Your task to perform on an android device: change notifications settings Image 0: 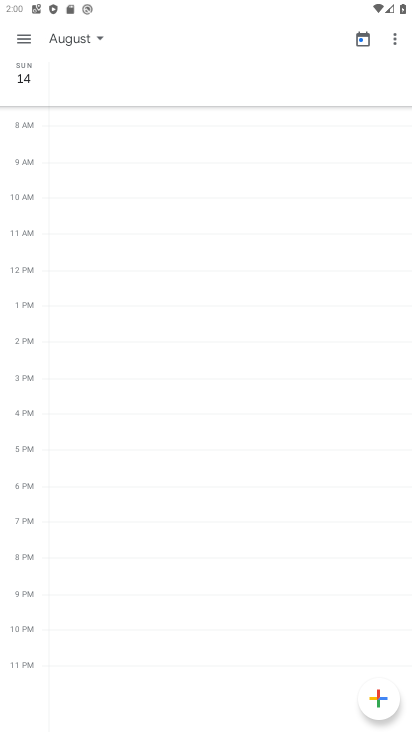
Step 0: press home button
Your task to perform on an android device: change notifications settings Image 1: 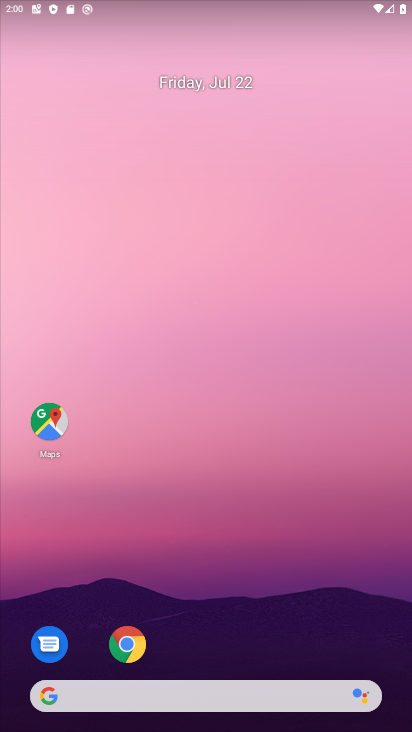
Step 1: drag from (229, 661) to (174, 152)
Your task to perform on an android device: change notifications settings Image 2: 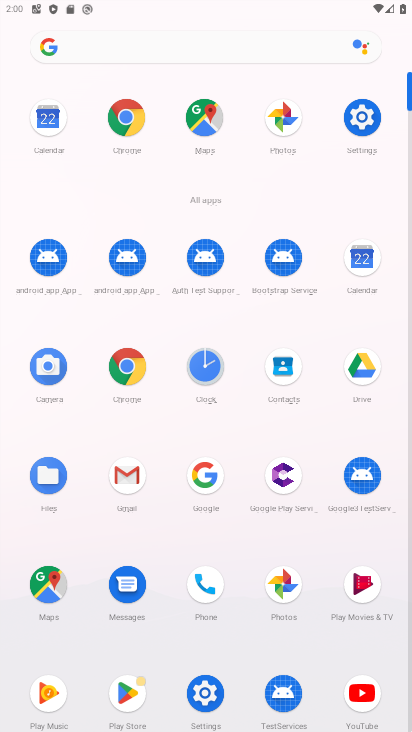
Step 2: click (361, 107)
Your task to perform on an android device: change notifications settings Image 3: 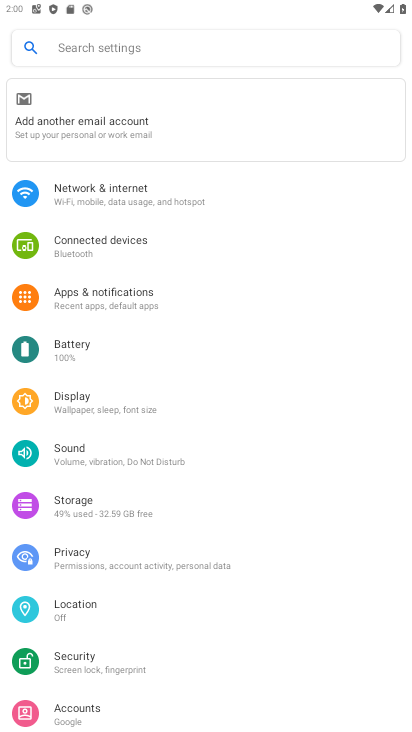
Step 3: drag from (75, 196) to (406, 355)
Your task to perform on an android device: change notifications settings Image 4: 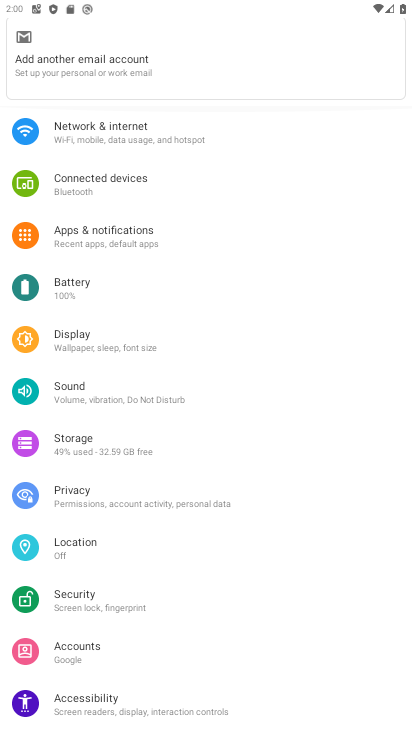
Step 4: click (118, 288)
Your task to perform on an android device: change notifications settings Image 5: 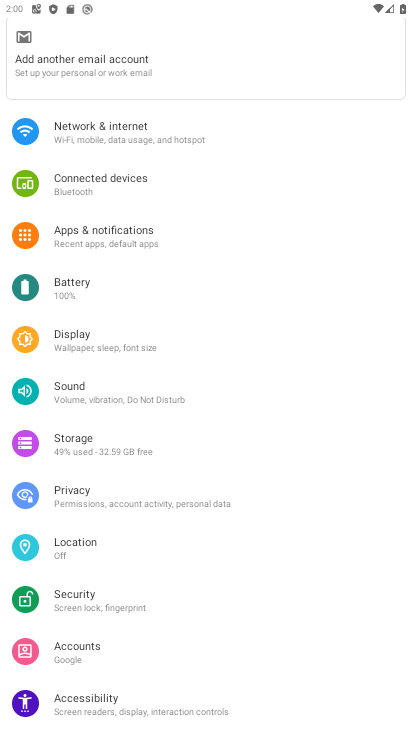
Step 5: click (133, 223)
Your task to perform on an android device: change notifications settings Image 6: 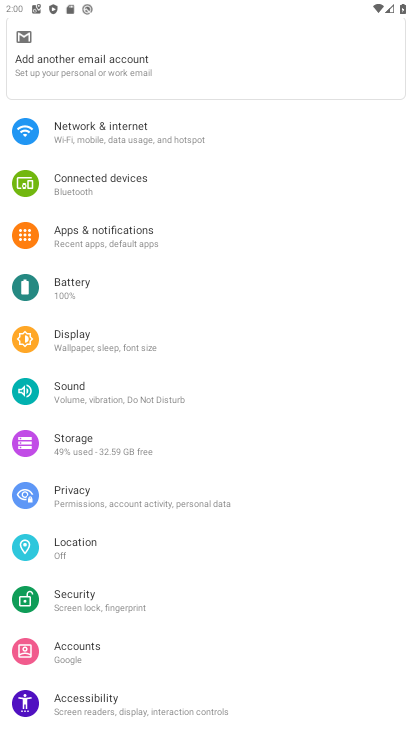
Step 6: click (133, 223)
Your task to perform on an android device: change notifications settings Image 7: 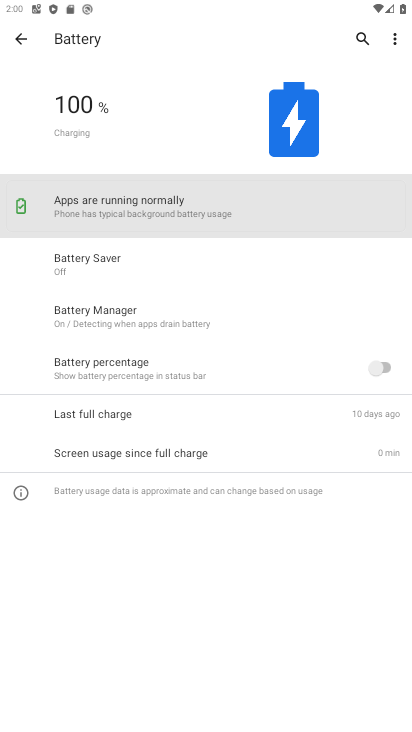
Step 7: click (133, 223)
Your task to perform on an android device: change notifications settings Image 8: 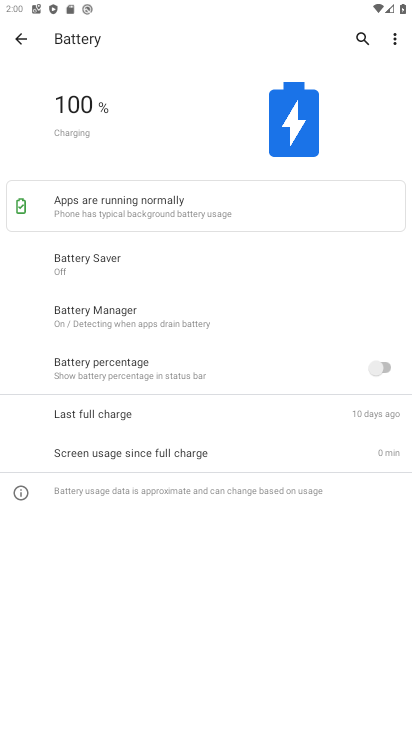
Step 8: click (40, 41)
Your task to perform on an android device: change notifications settings Image 9: 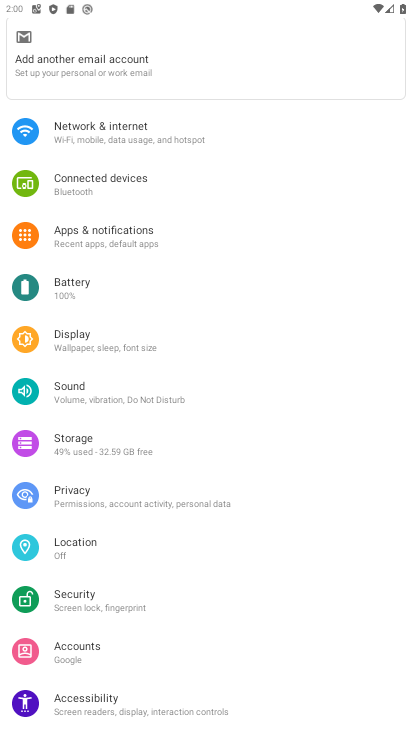
Step 9: click (97, 231)
Your task to perform on an android device: change notifications settings Image 10: 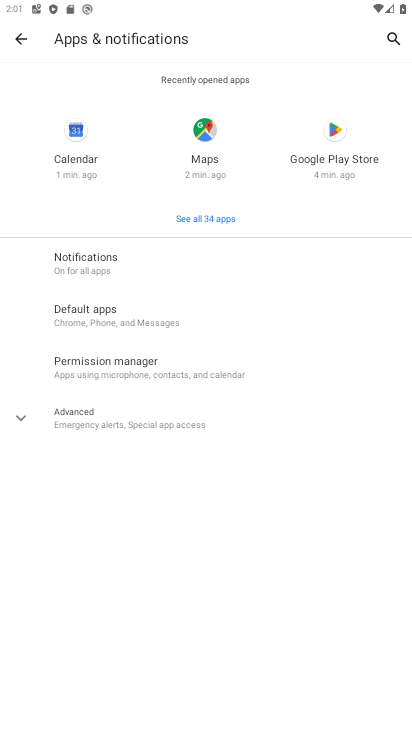
Step 10: click (146, 263)
Your task to perform on an android device: change notifications settings Image 11: 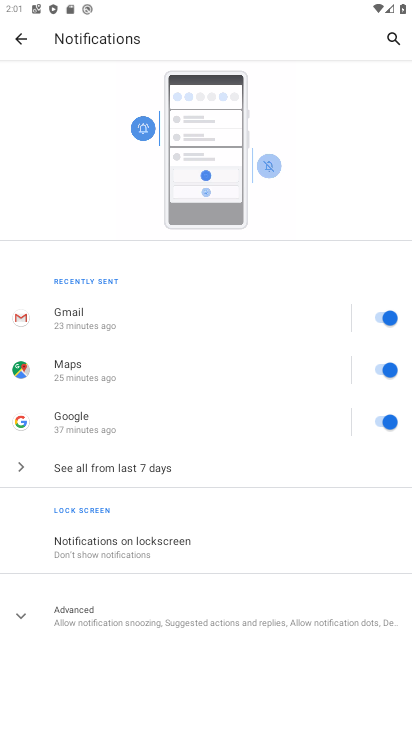
Step 11: click (141, 459)
Your task to perform on an android device: change notifications settings Image 12: 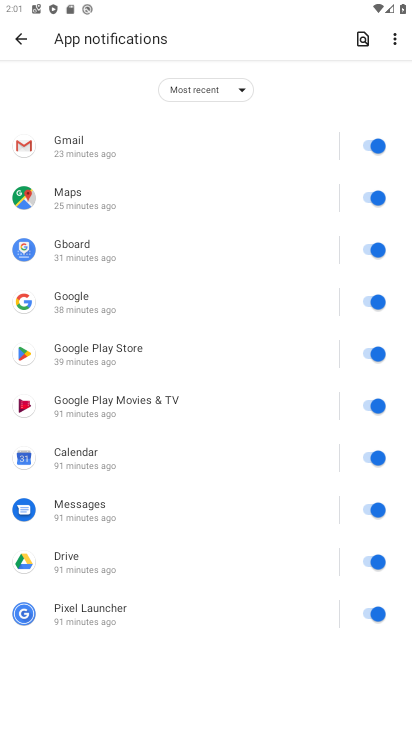
Step 12: click (363, 137)
Your task to perform on an android device: change notifications settings Image 13: 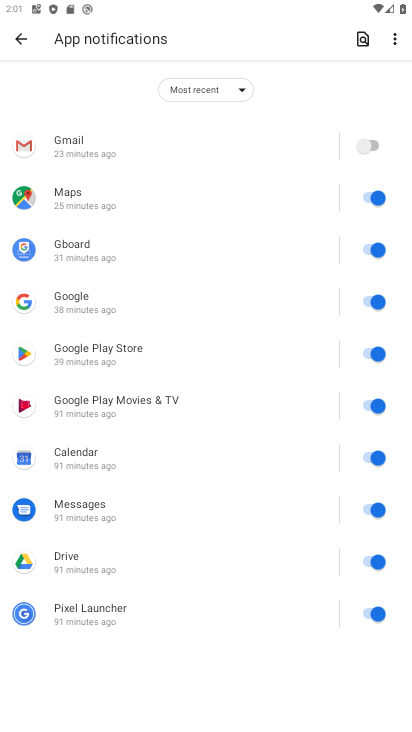
Step 13: click (372, 195)
Your task to perform on an android device: change notifications settings Image 14: 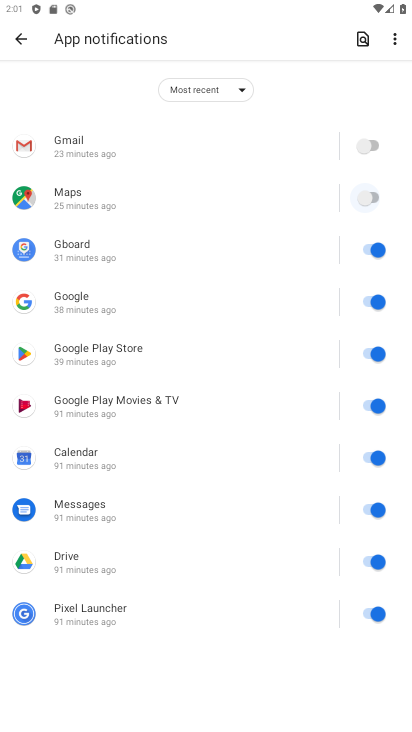
Step 14: click (378, 262)
Your task to perform on an android device: change notifications settings Image 15: 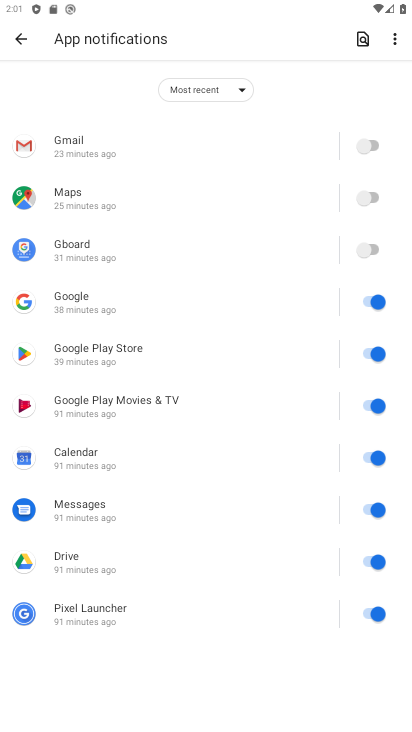
Step 15: click (368, 308)
Your task to perform on an android device: change notifications settings Image 16: 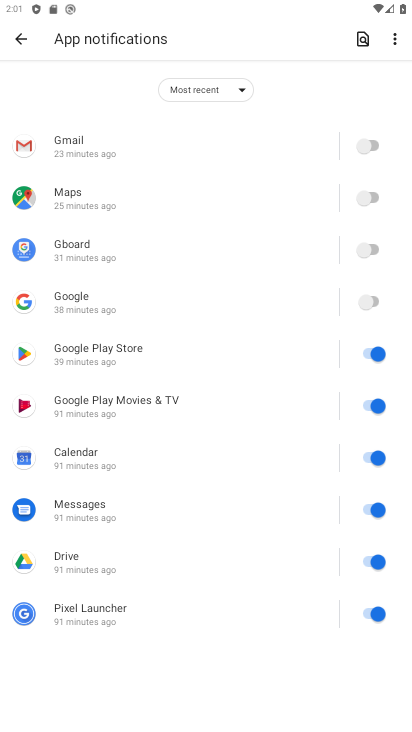
Step 16: click (370, 347)
Your task to perform on an android device: change notifications settings Image 17: 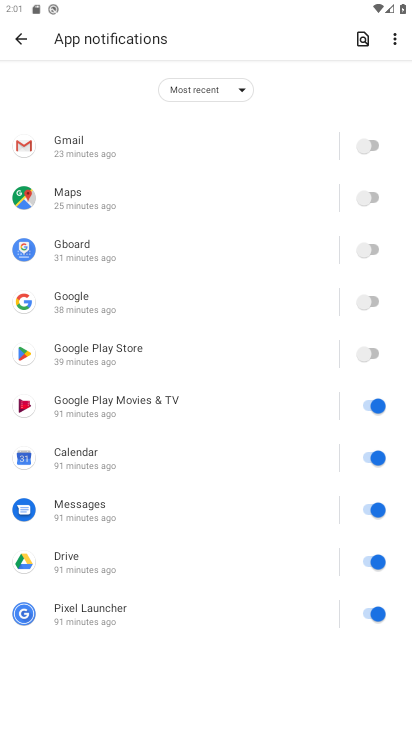
Step 17: click (372, 388)
Your task to perform on an android device: change notifications settings Image 18: 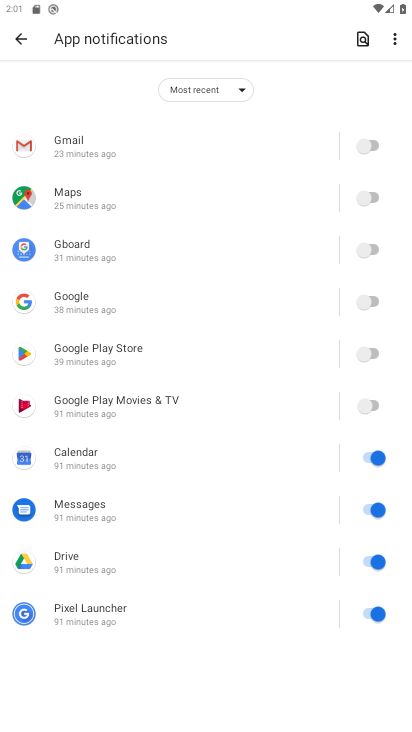
Step 18: click (372, 456)
Your task to perform on an android device: change notifications settings Image 19: 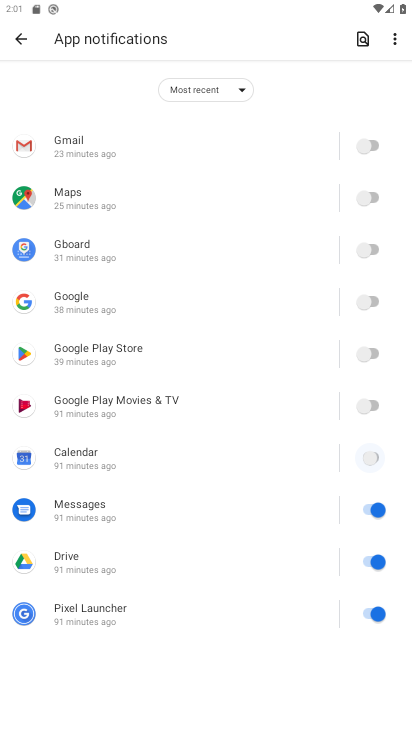
Step 19: click (372, 500)
Your task to perform on an android device: change notifications settings Image 20: 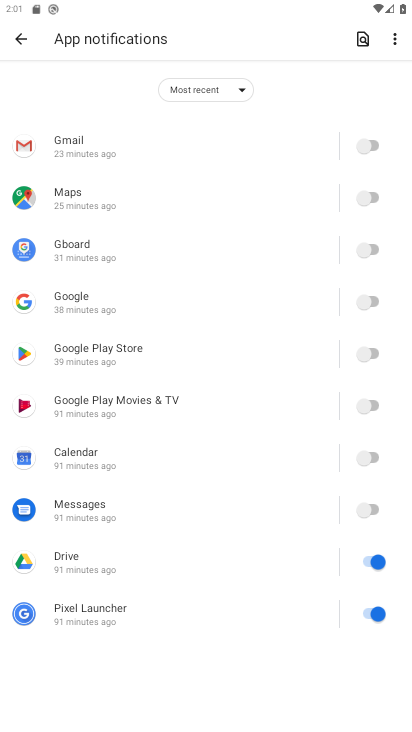
Step 20: click (376, 575)
Your task to perform on an android device: change notifications settings Image 21: 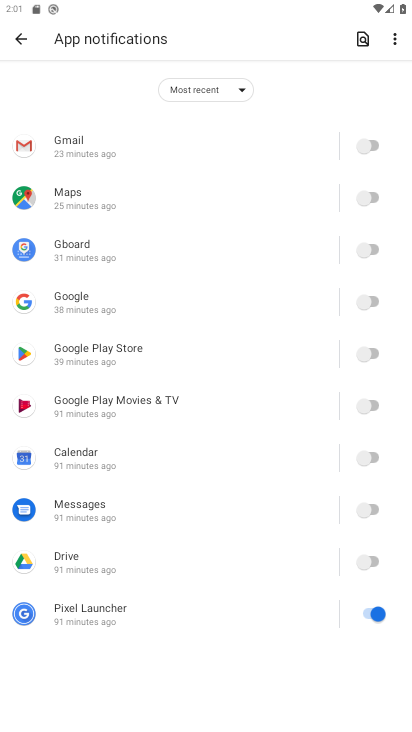
Step 21: click (378, 599)
Your task to perform on an android device: change notifications settings Image 22: 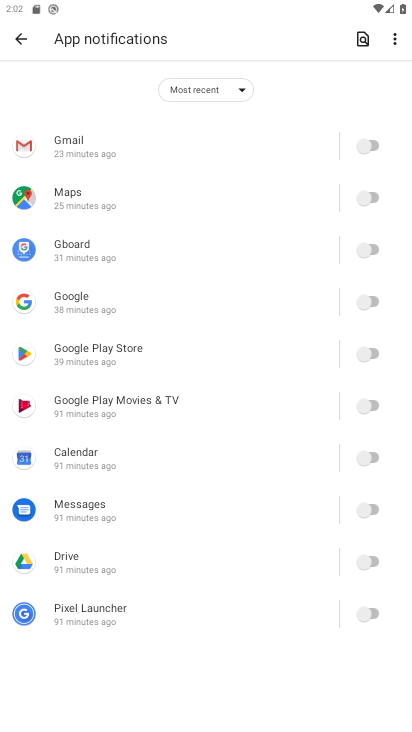
Step 22: click (367, 145)
Your task to perform on an android device: change notifications settings Image 23: 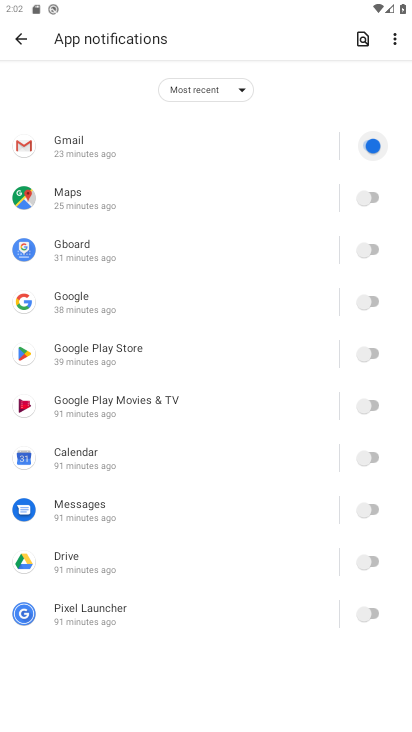
Step 23: click (367, 204)
Your task to perform on an android device: change notifications settings Image 24: 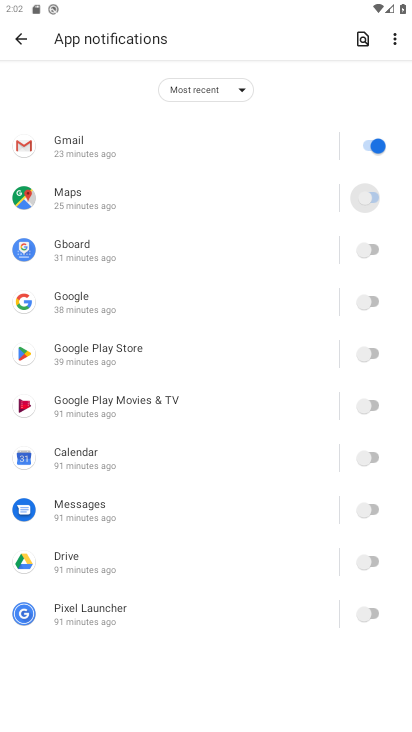
Step 24: click (367, 233)
Your task to perform on an android device: change notifications settings Image 25: 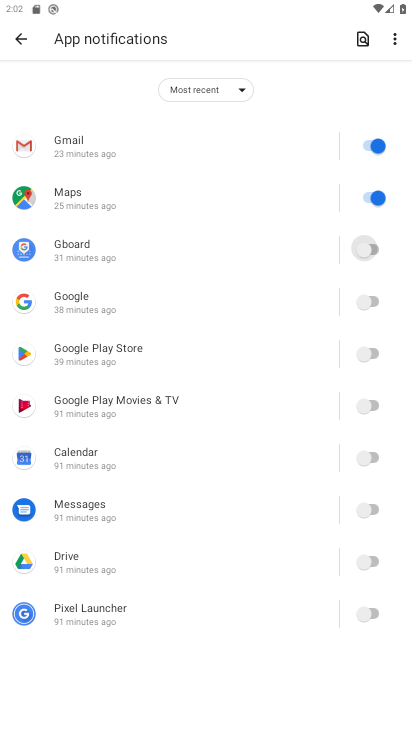
Step 25: click (367, 233)
Your task to perform on an android device: change notifications settings Image 26: 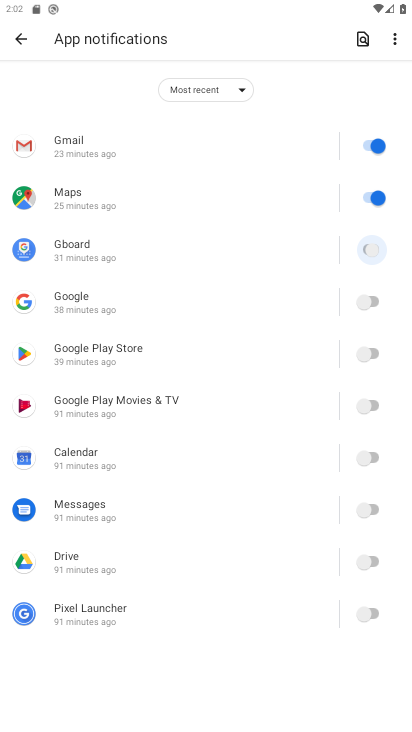
Step 26: click (359, 297)
Your task to perform on an android device: change notifications settings Image 27: 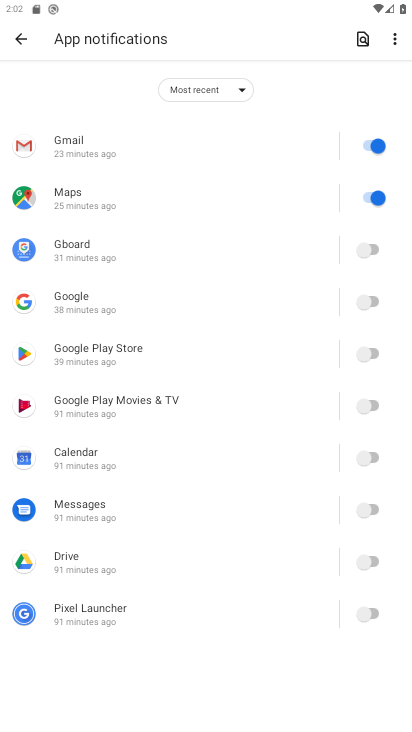
Step 27: click (359, 307)
Your task to perform on an android device: change notifications settings Image 28: 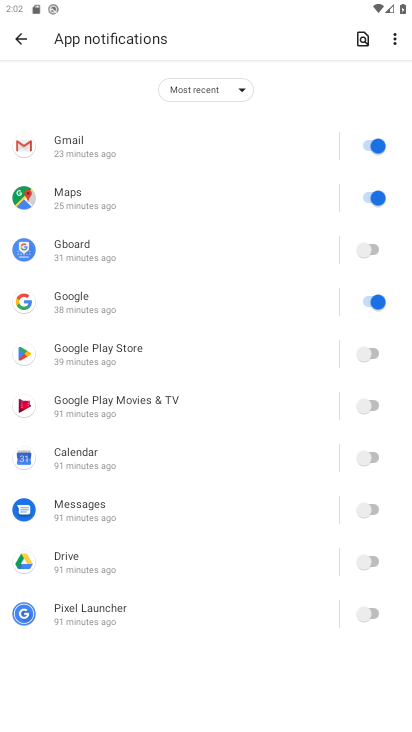
Step 28: click (361, 363)
Your task to perform on an android device: change notifications settings Image 29: 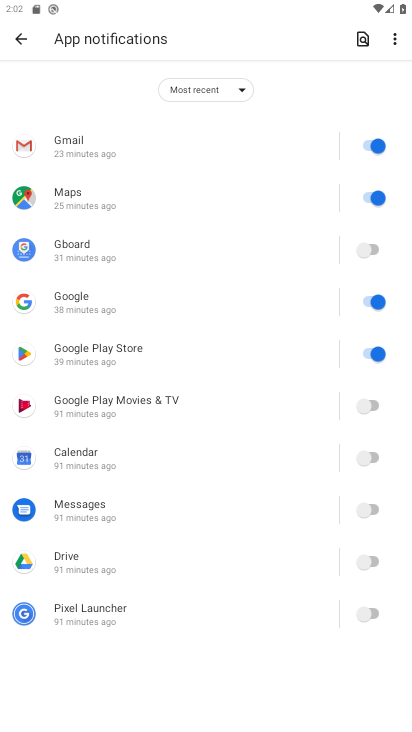
Step 29: click (372, 240)
Your task to perform on an android device: change notifications settings Image 30: 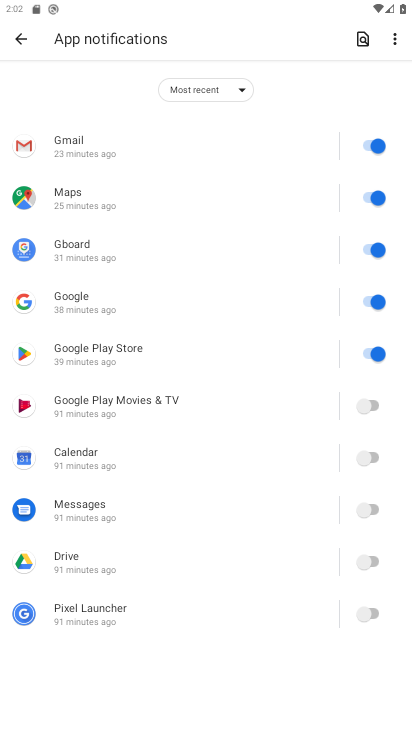
Step 30: click (371, 402)
Your task to perform on an android device: change notifications settings Image 31: 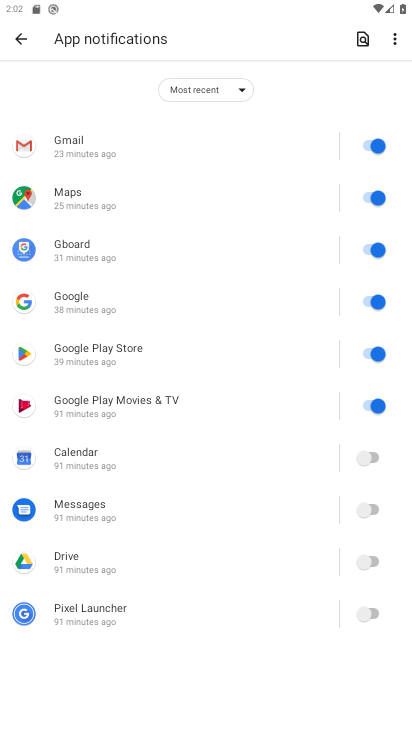
Step 31: click (369, 440)
Your task to perform on an android device: change notifications settings Image 32: 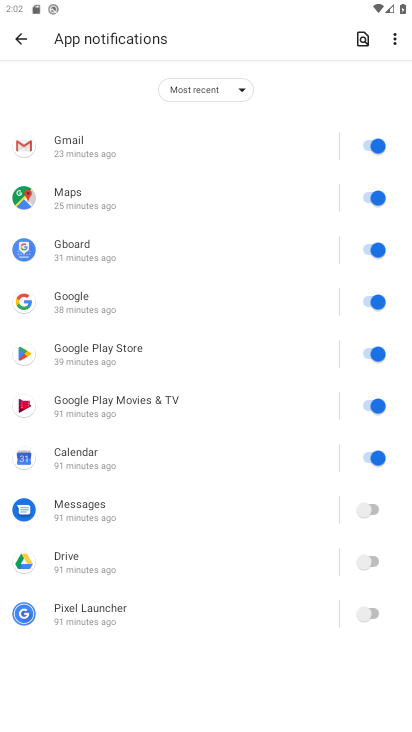
Step 32: click (367, 504)
Your task to perform on an android device: change notifications settings Image 33: 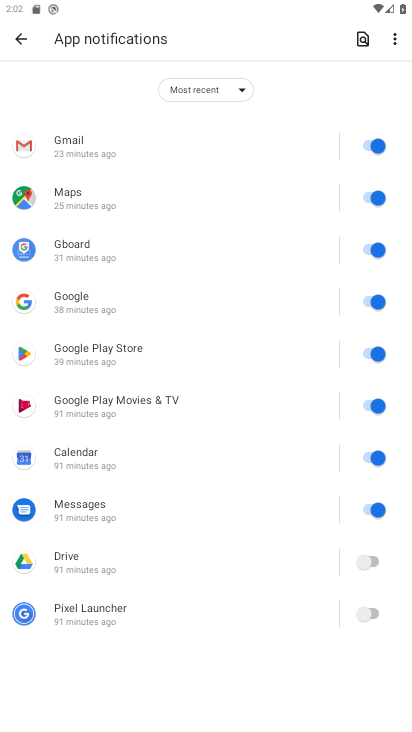
Step 33: click (369, 561)
Your task to perform on an android device: change notifications settings Image 34: 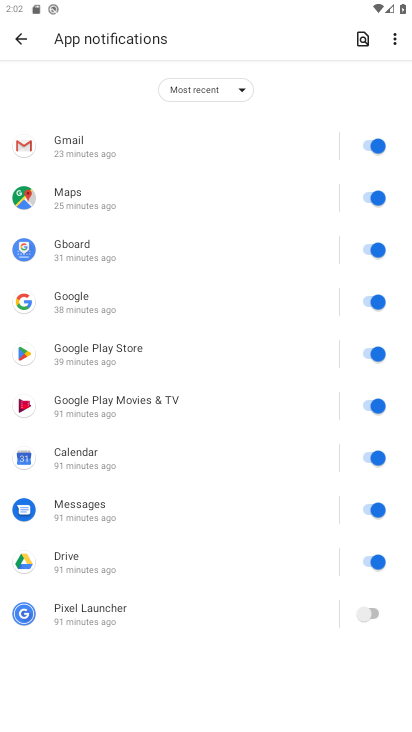
Step 34: click (373, 607)
Your task to perform on an android device: change notifications settings Image 35: 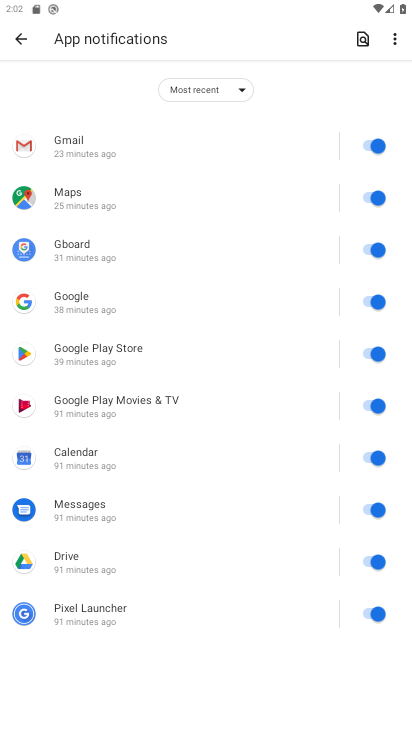
Step 35: task complete